Your task to perform on an android device: find snoozed emails in the gmail app Image 0: 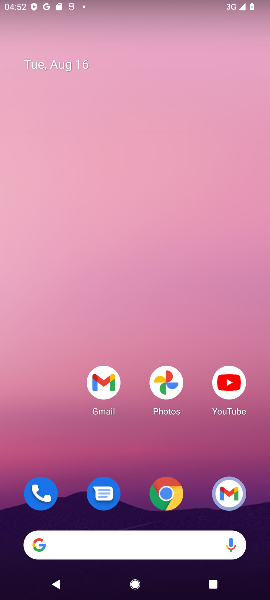
Step 0: press home button
Your task to perform on an android device: find snoozed emails in the gmail app Image 1: 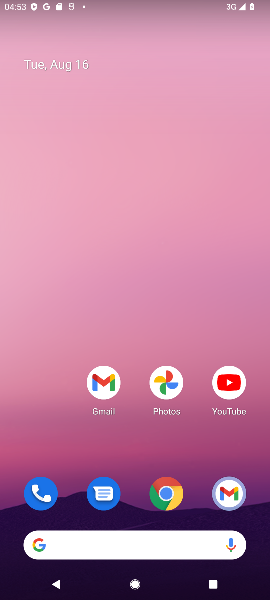
Step 1: drag from (71, 504) to (63, 267)
Your task to perform on an android device: find snoozed emails in the gmail app Image 2: 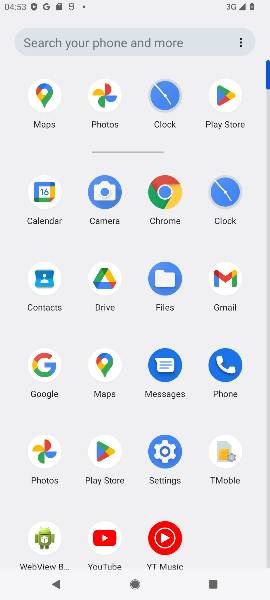
Step 2: click (231, 278)
Your task to perform on an android device: find snoozed emails in the gmail app Image 3: 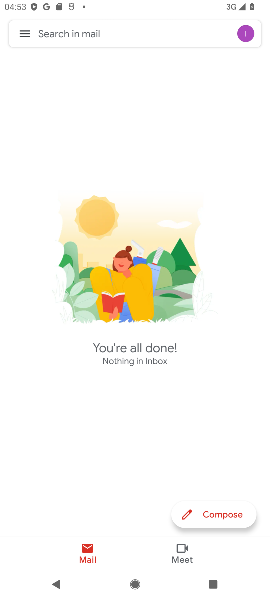
Step 3: click (19, 29)
Your task to perform on an android device: find snoozed emails in the gmail app Image 4: 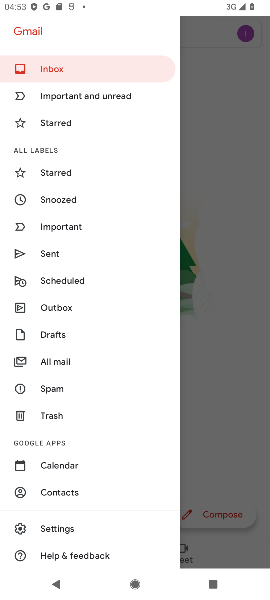
Step 4: click (73, 205)
Your task to perform on an android device: find snoozed emails in the gmail app Image 5: 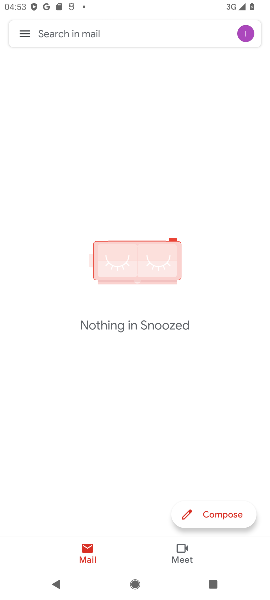
Step 5: task complete